Your task to perform on an android device: turn on priority inbox in the gmail app Image 0: 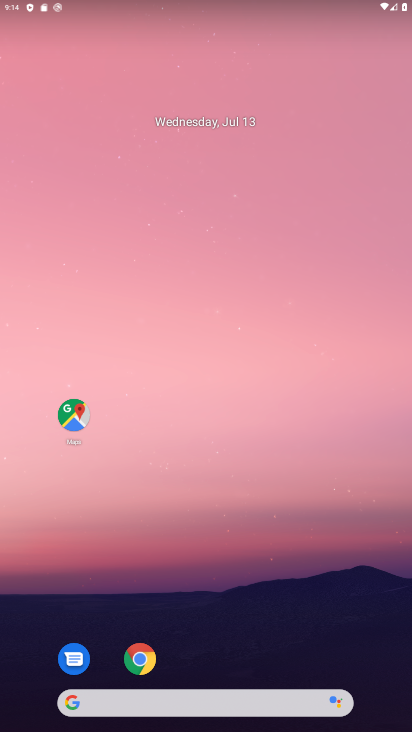
Step 0: drag from (180, 679) to (278, 167)
Your task to perform on an android device: turn on priority inbox in the gmail app Image 1: 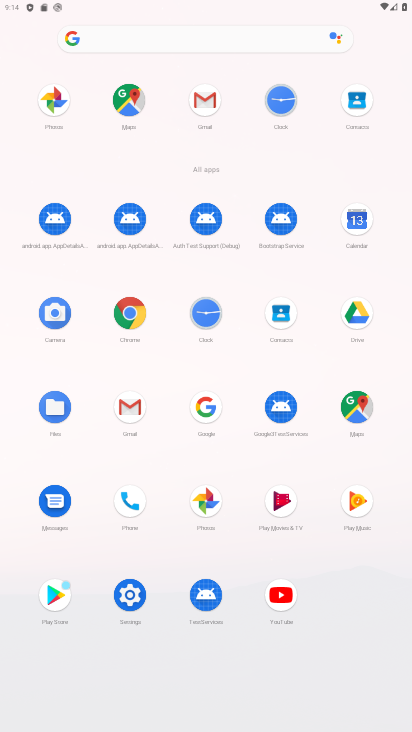
Step 1: click (112, 402)
Your task to perform on an android device: turn on priority inbox in the gmail app Image 2: 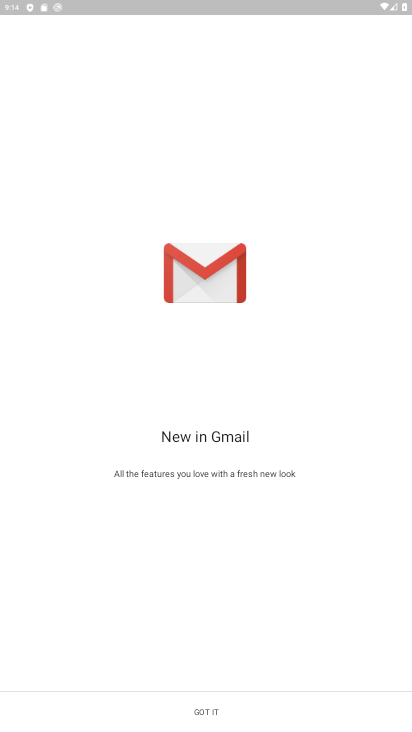
Step 2: click (193, 712)
Your task to perform on an android device: turn on priority inbox in the gmail app Image 3: 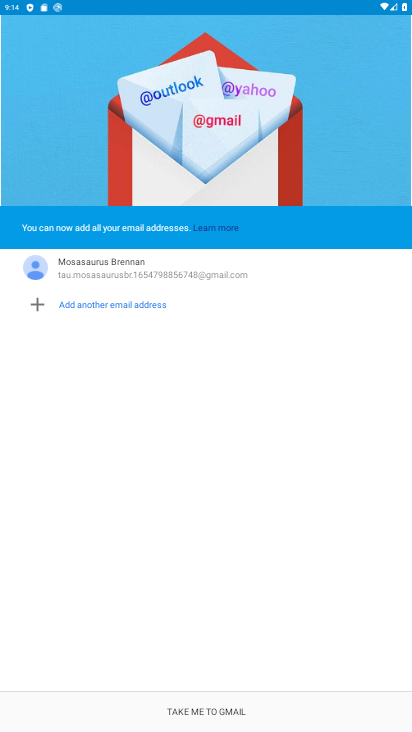
Step 3: click (225, 722)
Your task to perform on an android device: turn on priority inbox in the gmail app Image 4: 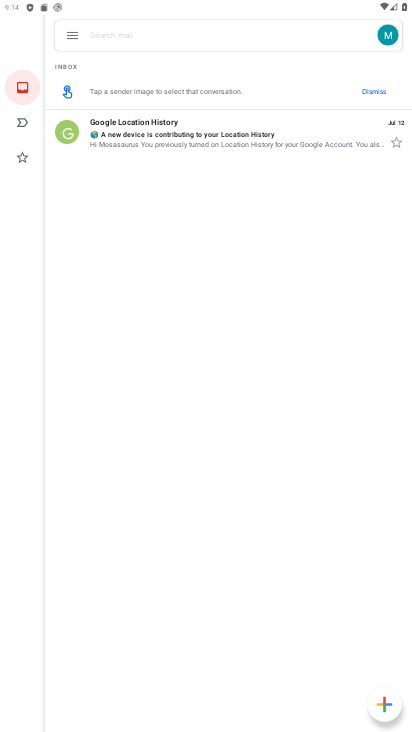
Step 4: click (72, 41)
Your task to perform on an android device: turn on priority inbox in the gmail app Image 5: 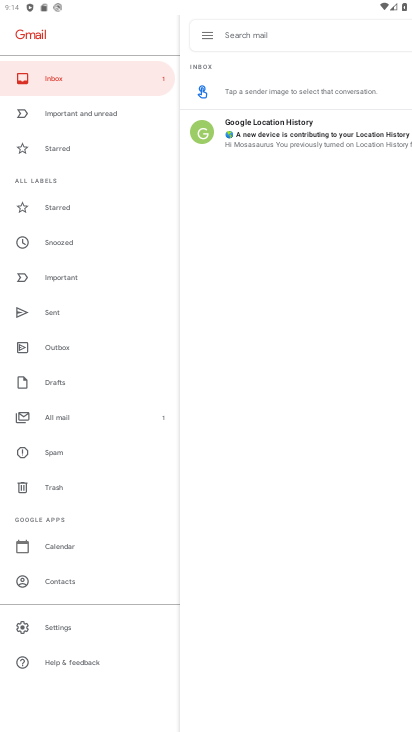
Step 5: click (81, 628)
Your task to perform on an android device: turn on priority inbox in the gmail app Image 6: 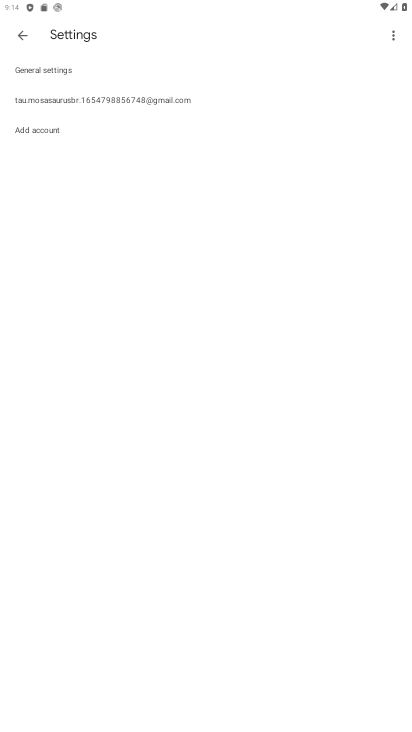
Step 6: click (187, 99)
Your task to perform on an android device: turn on priority inbox in the gmail app Image 7: 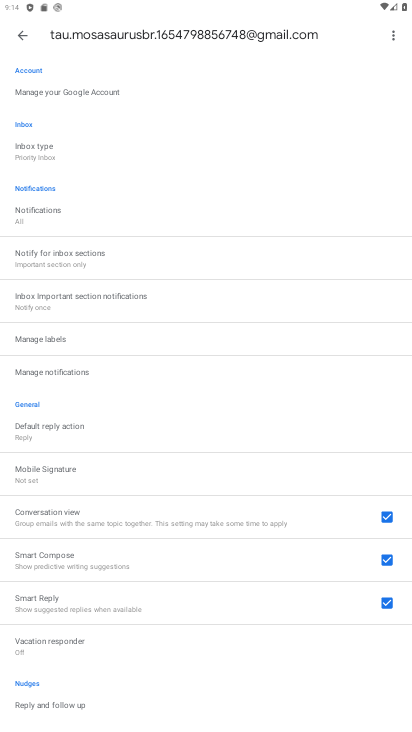
Step 7: task complete